Your task to perform on an android device: Go to Google maps Image 0: 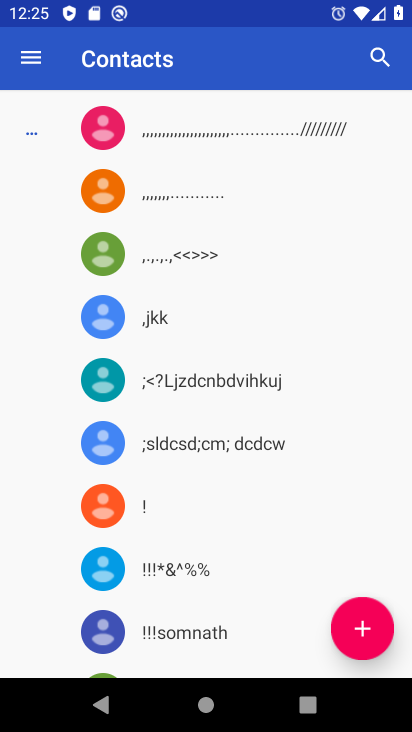
Step 0: press home button
Your task to perform on an android device: Go to Google maps Image 1: 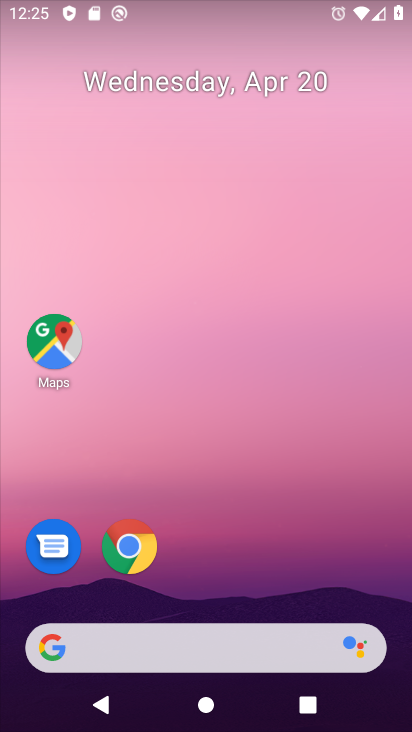
Step 1: click (45, 345)
Your task to perform on an android device: Go to Google maps Image 2: 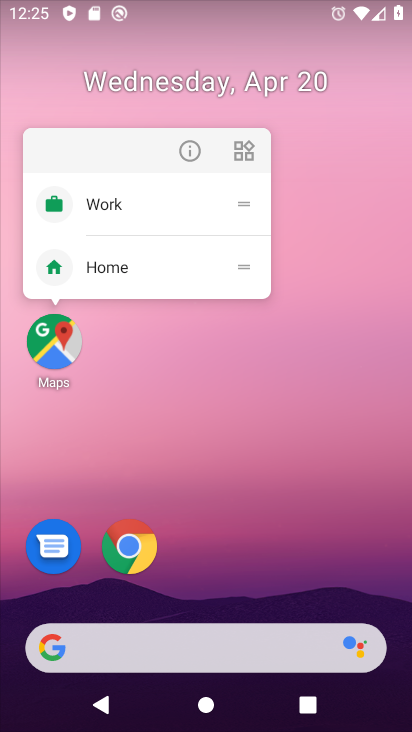
Step 2: click (45, 345)
Your task to perform on an android device: Go to Google maps Image 3: 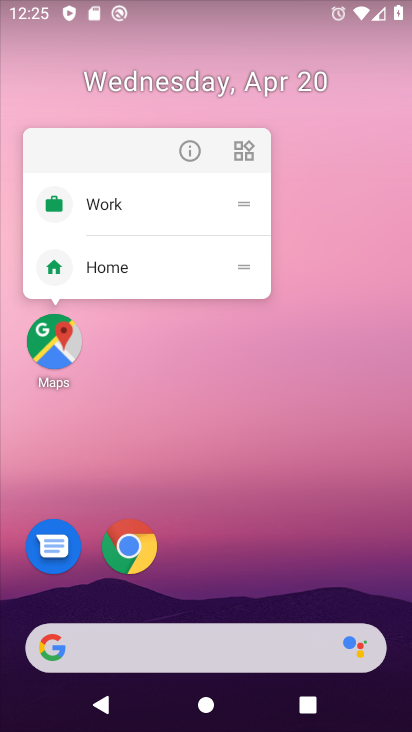
Step 3: click (50, 357)
Your task to perform on an android device: Go to Google maps Image 4: 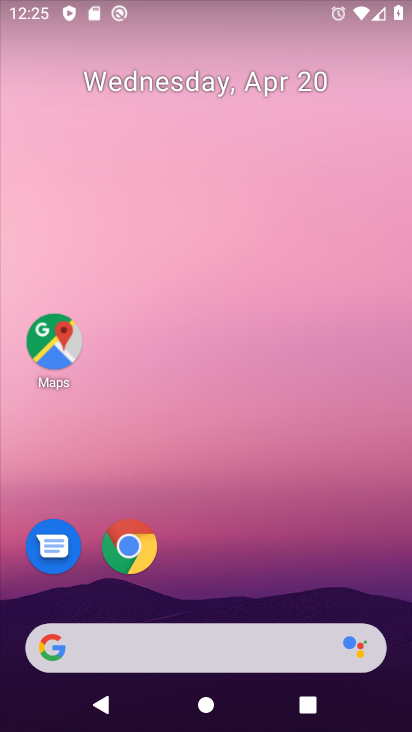
Step 4: click (50, 357)
Your task to perform on an android device: Go to Google maps Image 5: 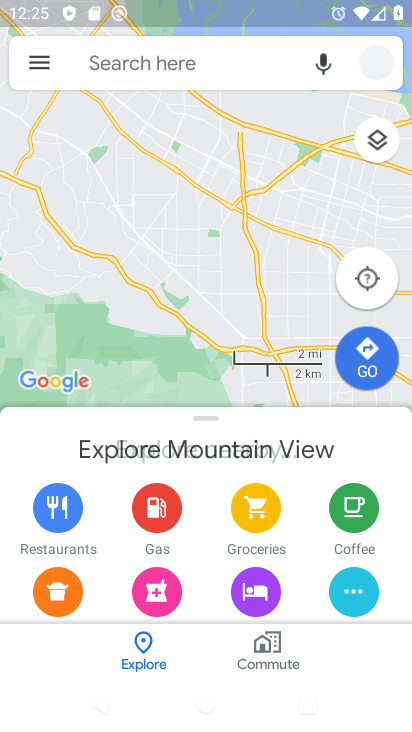
Step 5: task complete